Your task to perform on an android device: Open my contact list Image 0: 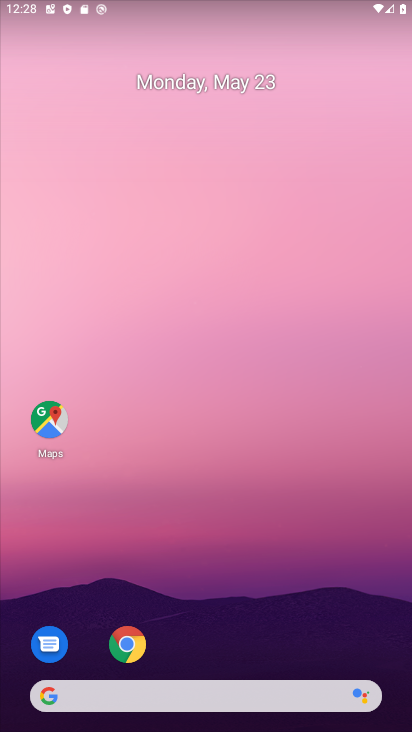
Step 0: drag from (248, 643) to (189, 57)
Your task to perform on an android device: Open my contact list Image 1: 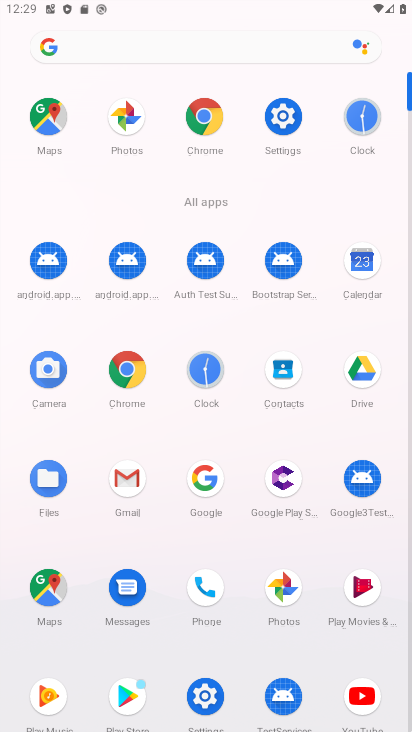
Step 1: click (284, 373)
Your task to perform on an android device: Open my contact list Image 2: 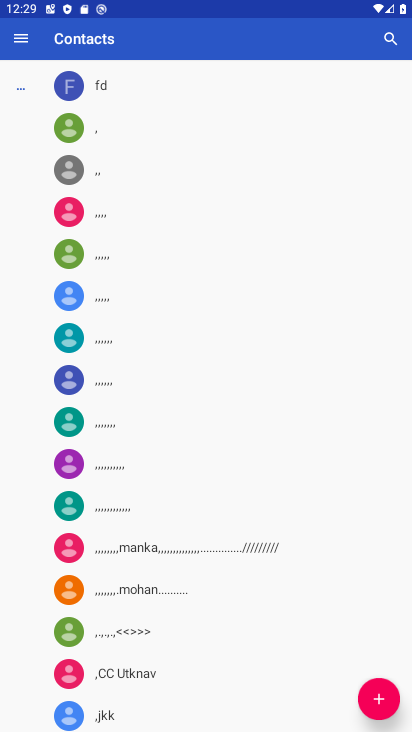
Step 2: task complete